Your task to perform on an android device: Search for "dell alienware" on bestbuy, select the first entry, add it to the cart, then select checkout. Image 0: 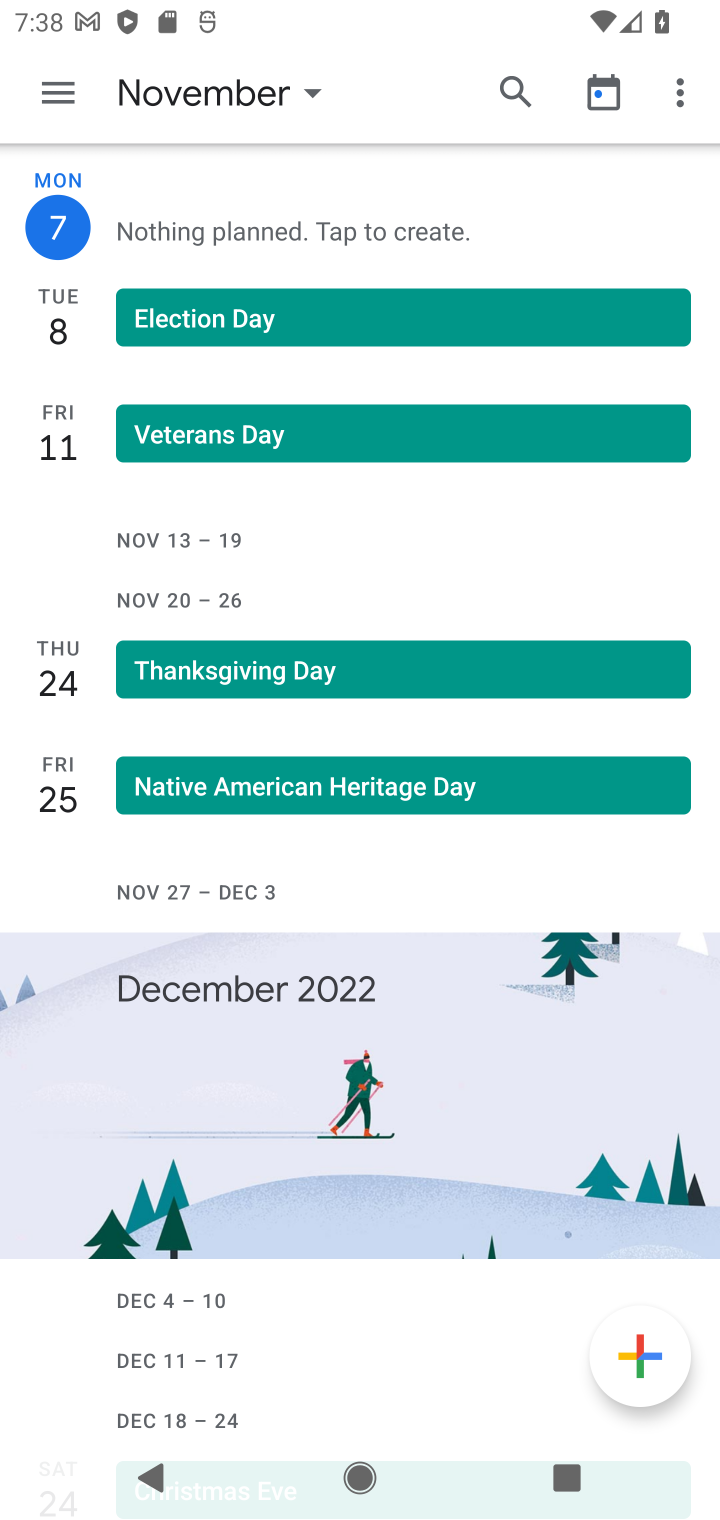
Step 0: press home button
Your task to perform on an android device: Search for "dell alienware" on bestbuy, select the first entry, add it to the cart, then select checkout. Image 1: 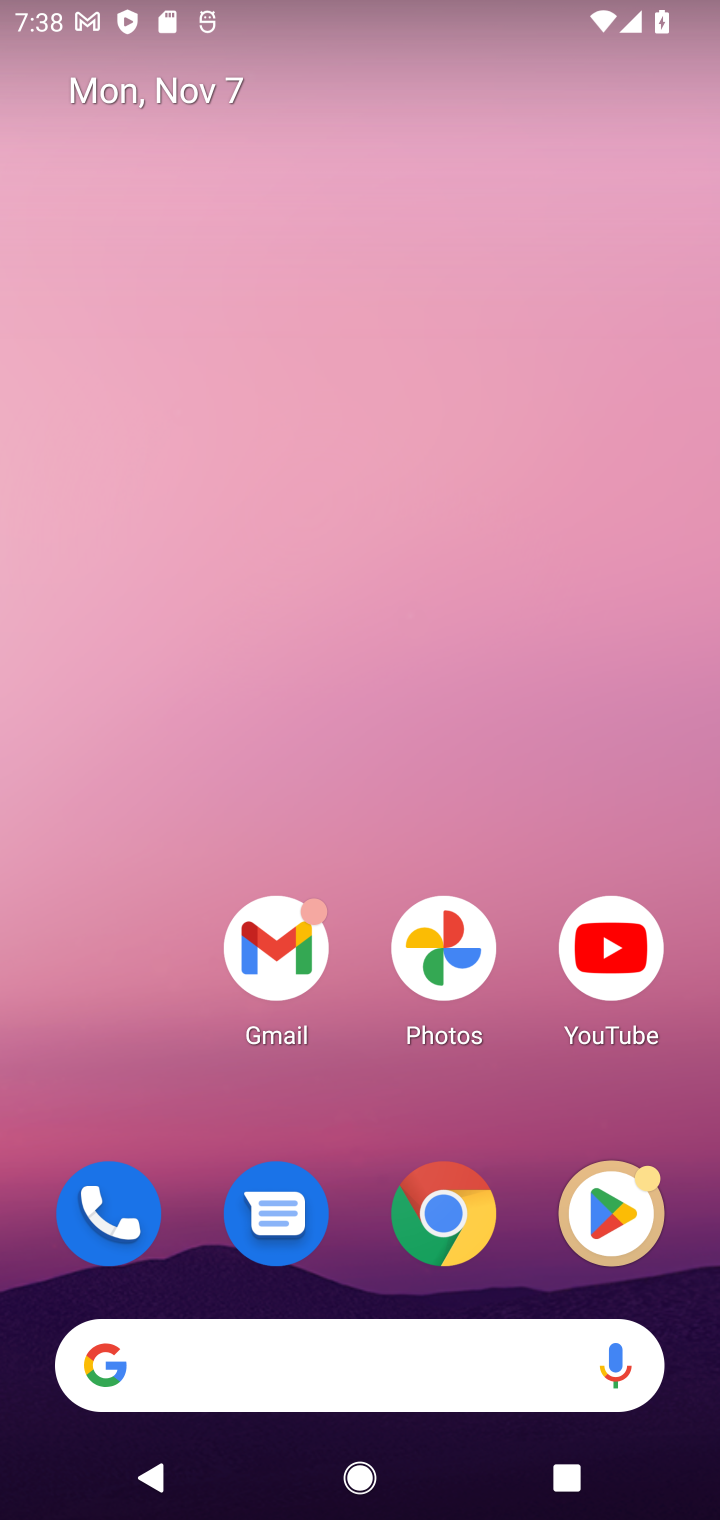
Step 1: click (443, 1227)
Your task to perform on an android device: Search for "dell alienware" on bestbuy, select the first entry, add it to the cart, then select checkout. Image 2: 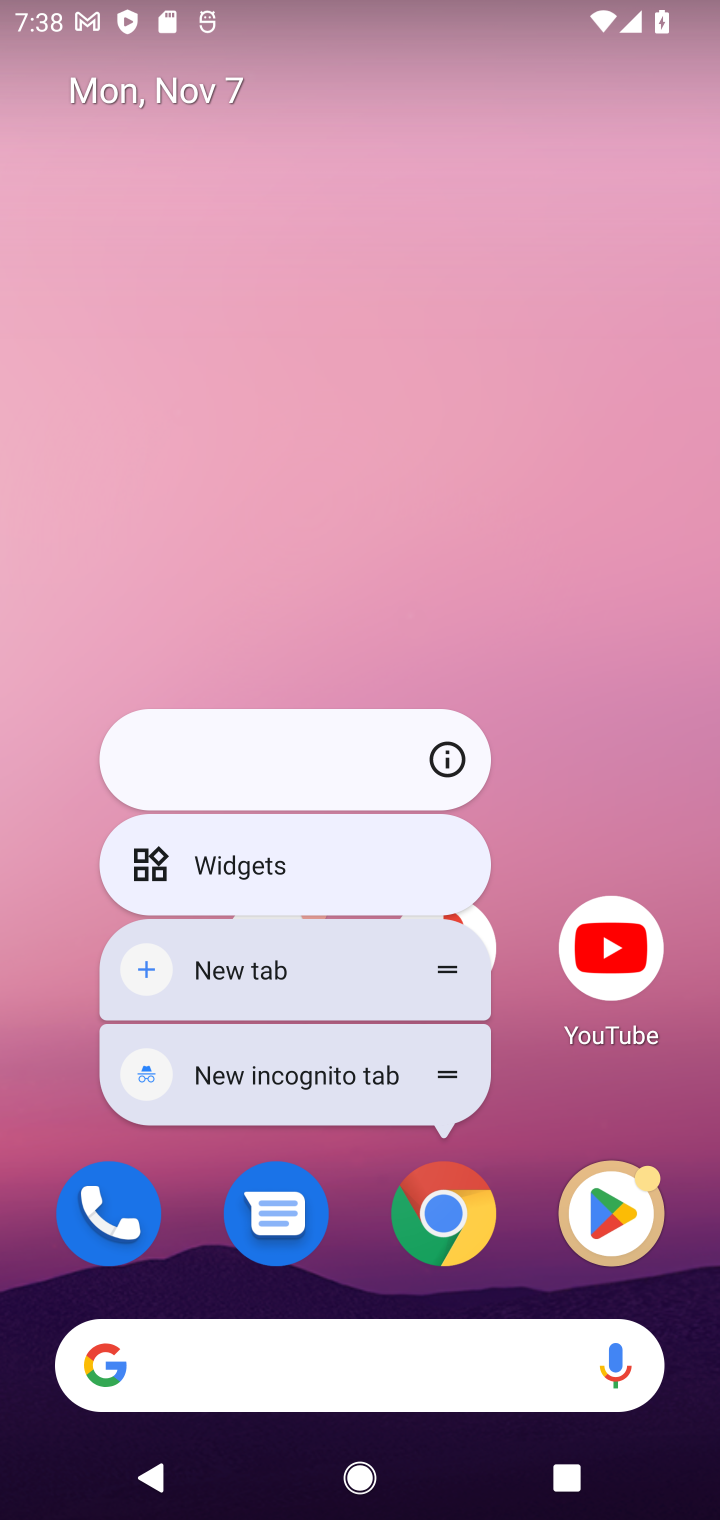
Step 2: click (443, 1227)
Your task to perform on an android device: Search for "dell alienware" on bestbuy, select the first entry, add it to the cart, then select checkout. Image 3: 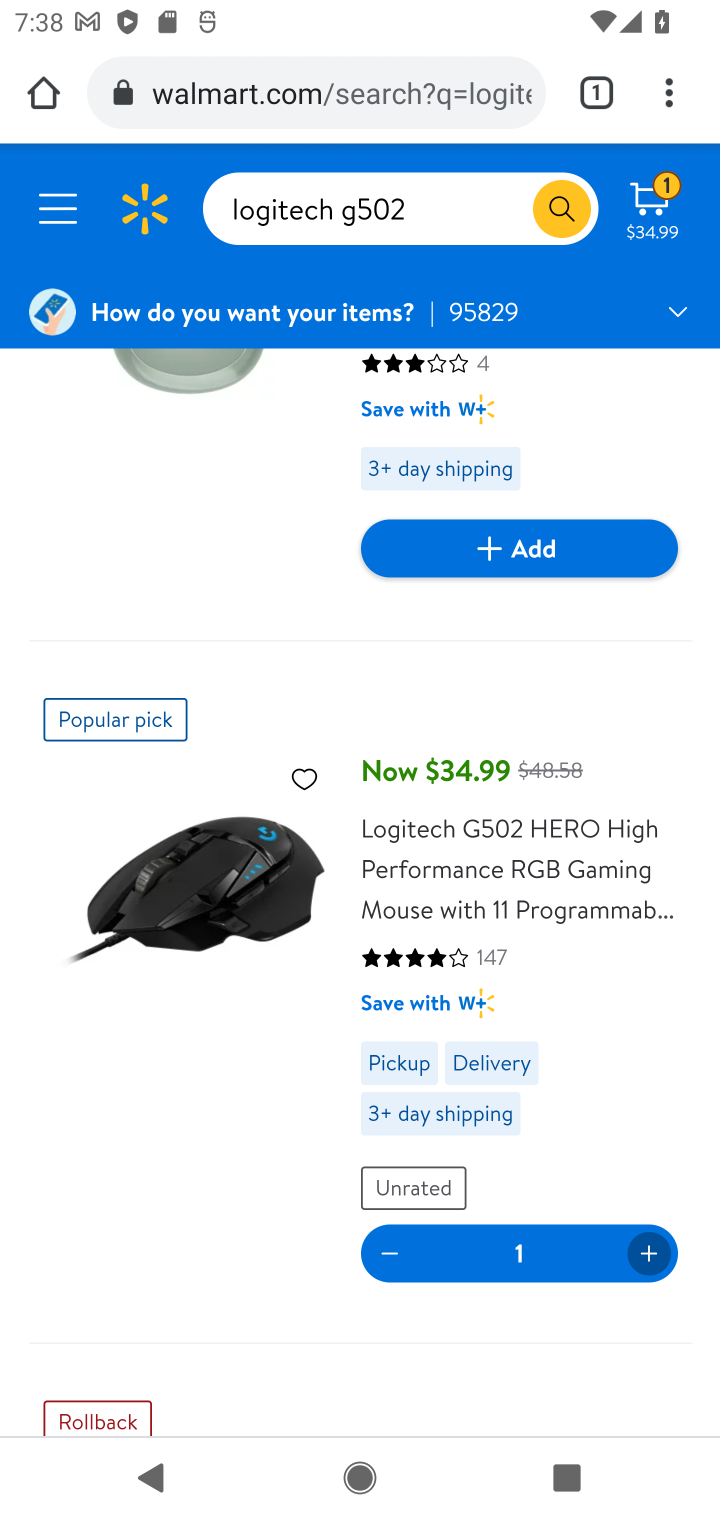
Step 3: click (298, 104)
Your task to perform on an android device: Search for "dell alienware" on bestbuy, select the first entry, add it to the cart, then select checkout. Image 4: 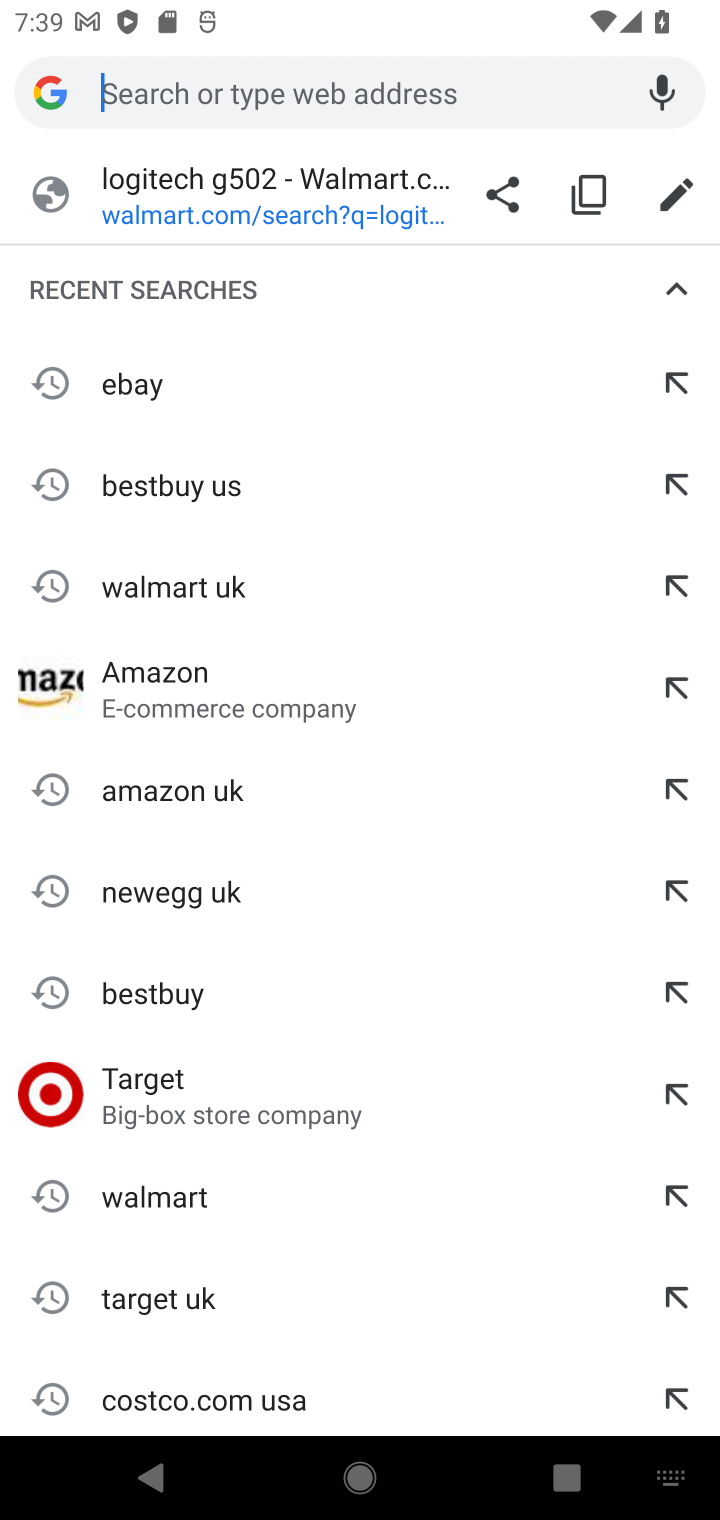
Step 4: type "bestbuy.com"
Your task to perform on an android device: Search for "dell alienware" on bestbuy, select the first entry, add it to the cart, then select checkout. Image 5: 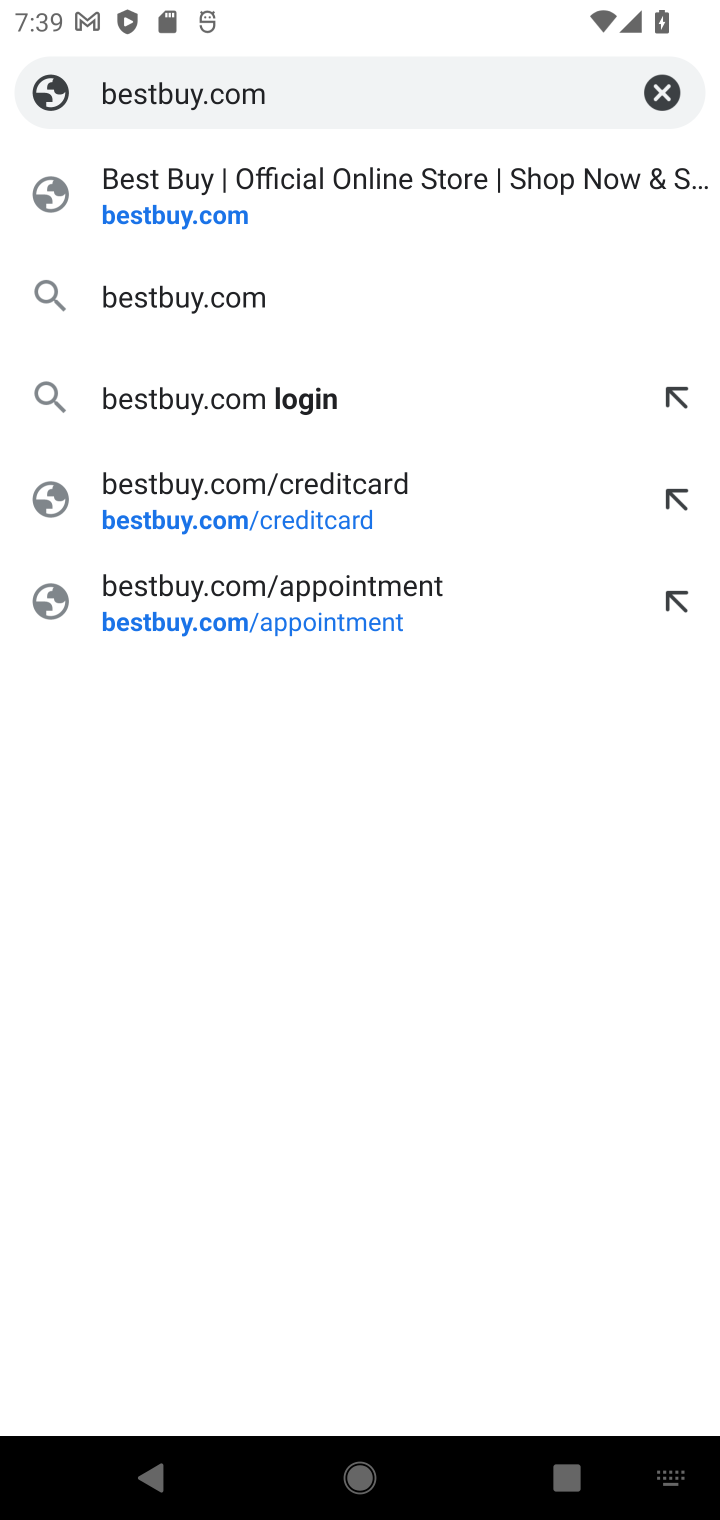
Step 5: click (177, 214)
Your task to perform on an android device: Search for "dell alienware" on bestbuy, select the first entry, add it to the cart, then select checkout. Image 6: 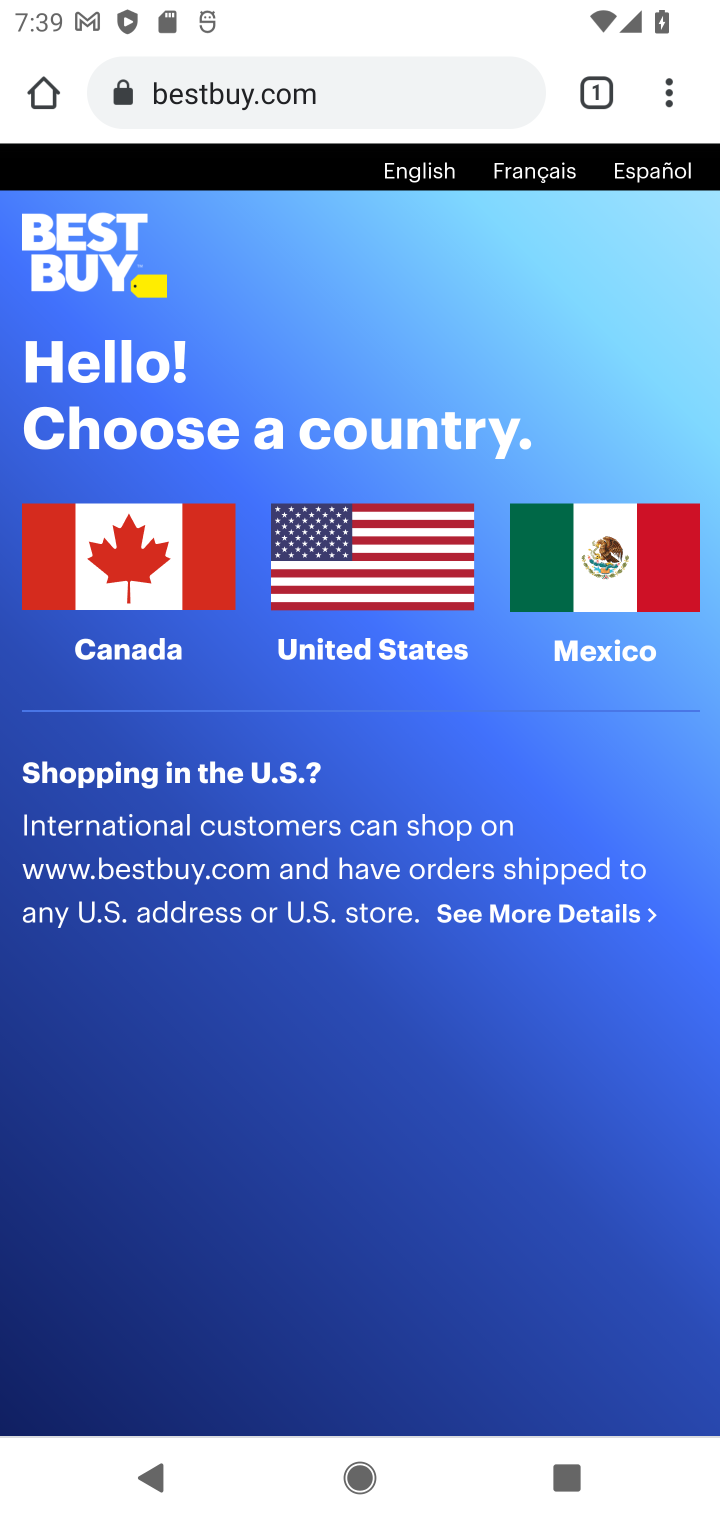
Step 6: click (355, 574)
Your task to perform on an android device: Search for "dell alienware" on bestbuy, select the first entry, add it to the cart, then select checkout. Image 7: 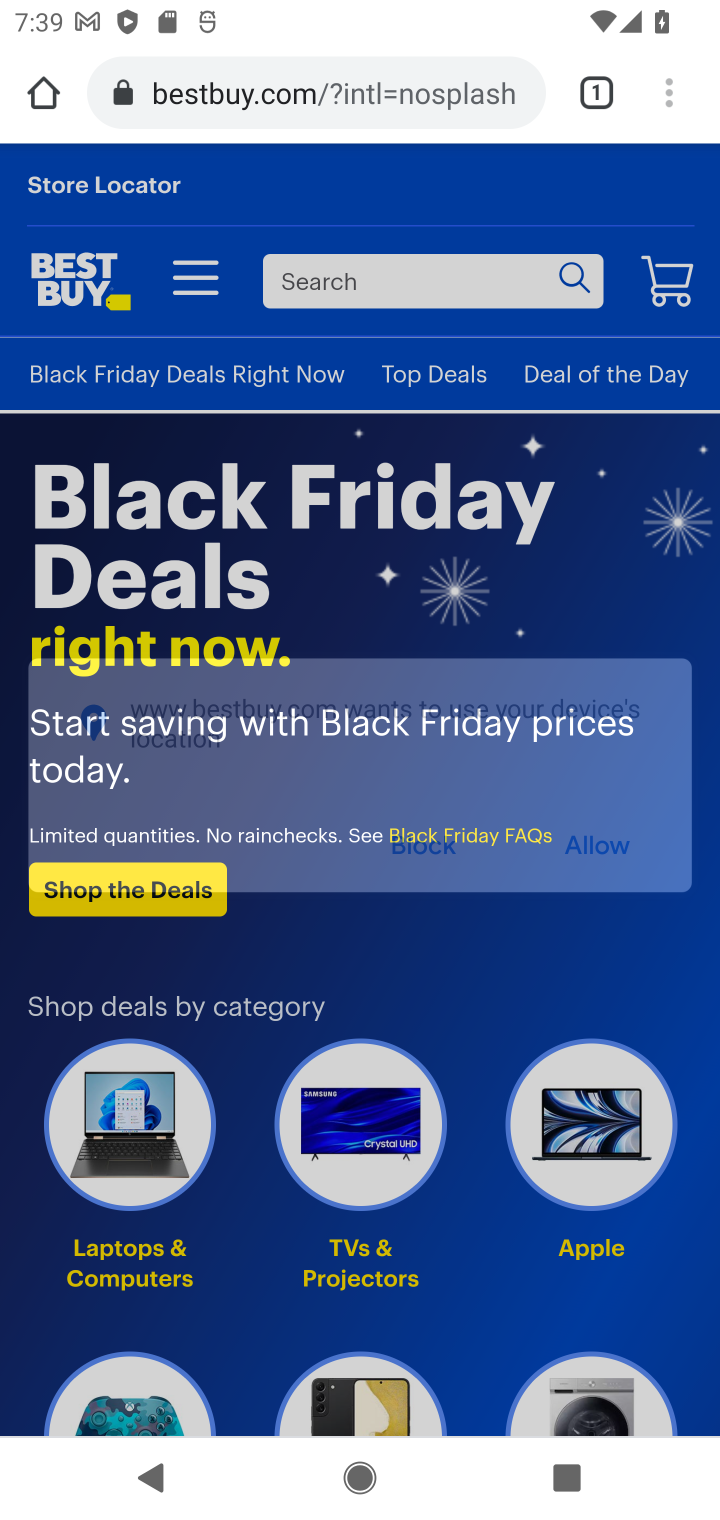
Step 7: click (380, 287)
Your task to perform on an android device: Search for "dell alienware" on bestbuy, select the first entry, add it to the cart, then select checkout. Image 8: 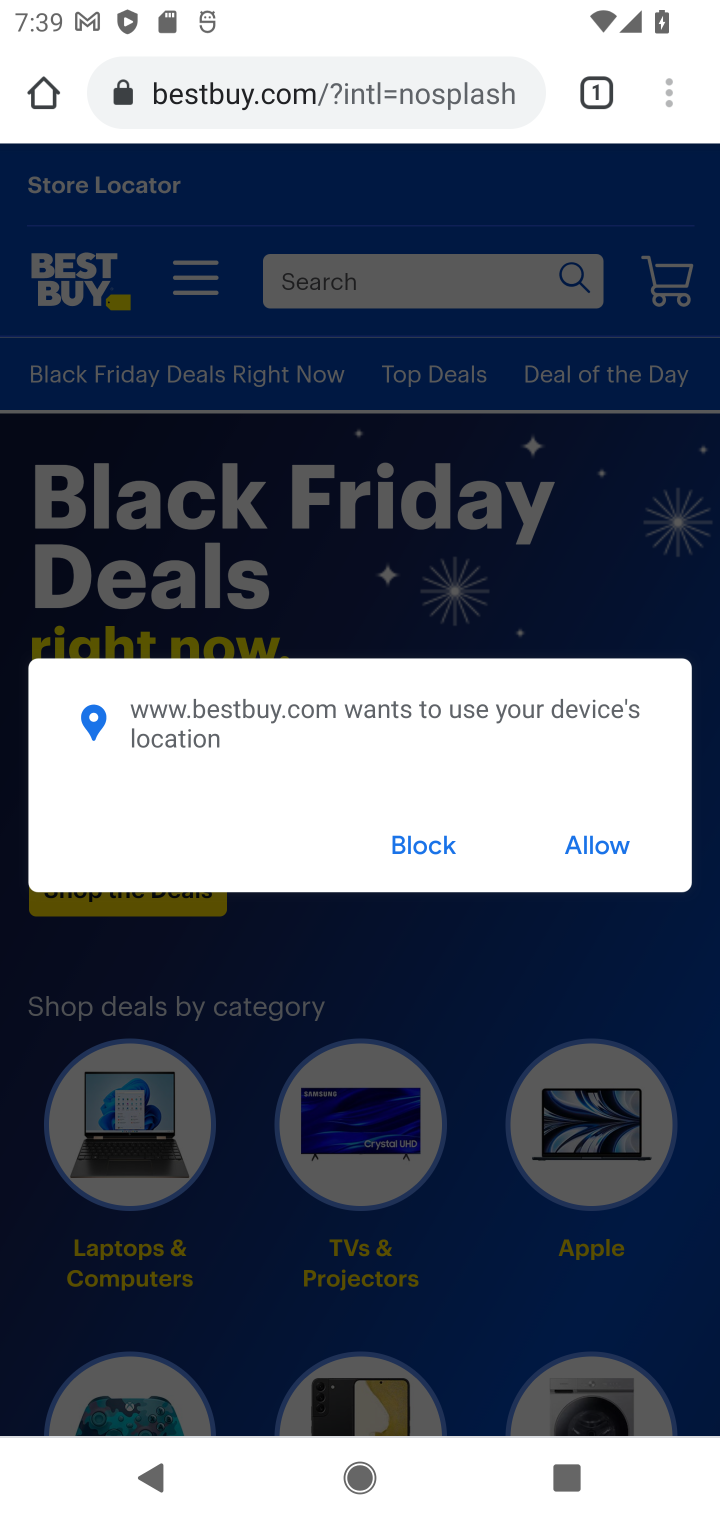
Step 8: click (391, 832)
Your task to perform on an android device: Search for "dell alienware" on bestbuy, select the first entry, add it to the cart, then select checkout. Image 9: 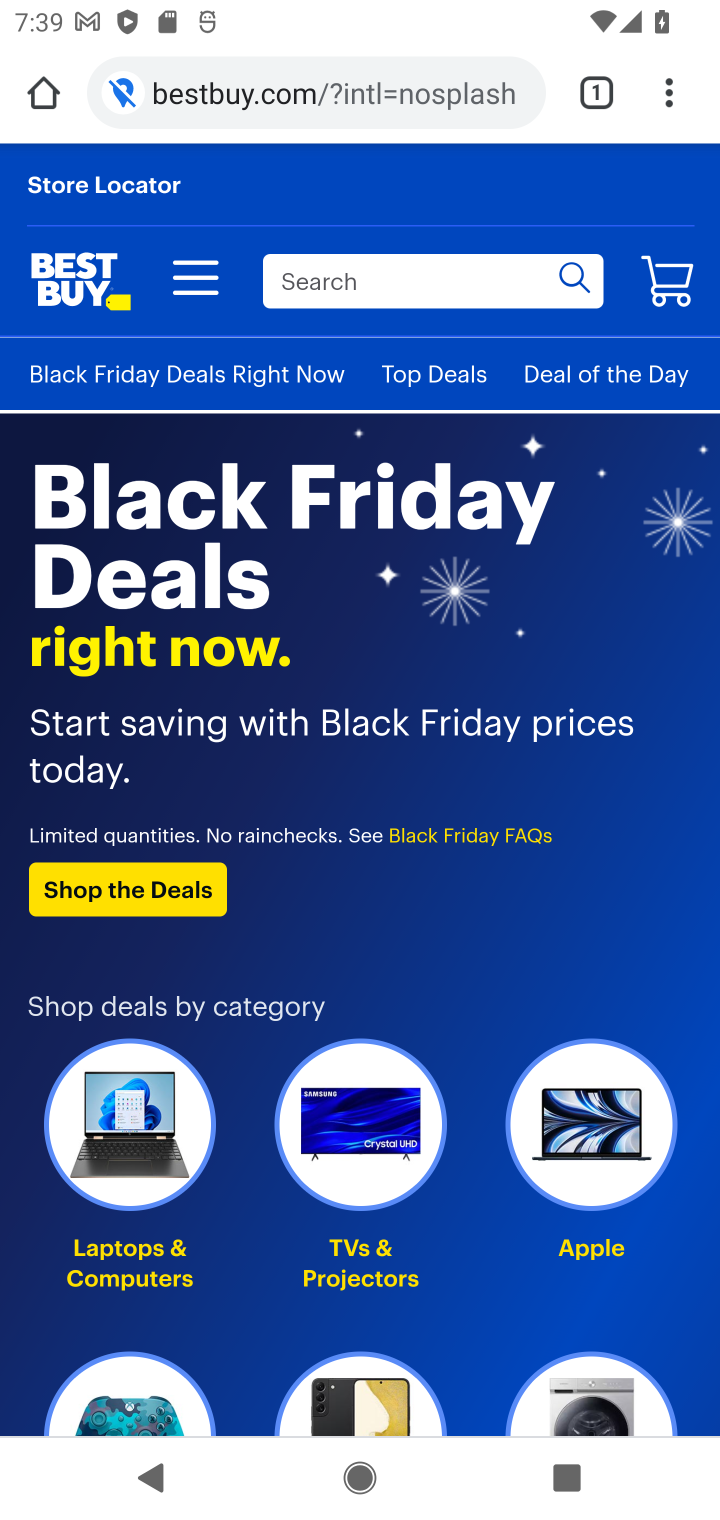
Step 9: click (324, 291)
Your task to perform on an android device: Search for "dell alienware" on bestbuy, select the first entry, add it to the cart, then select checkout. Image 10: 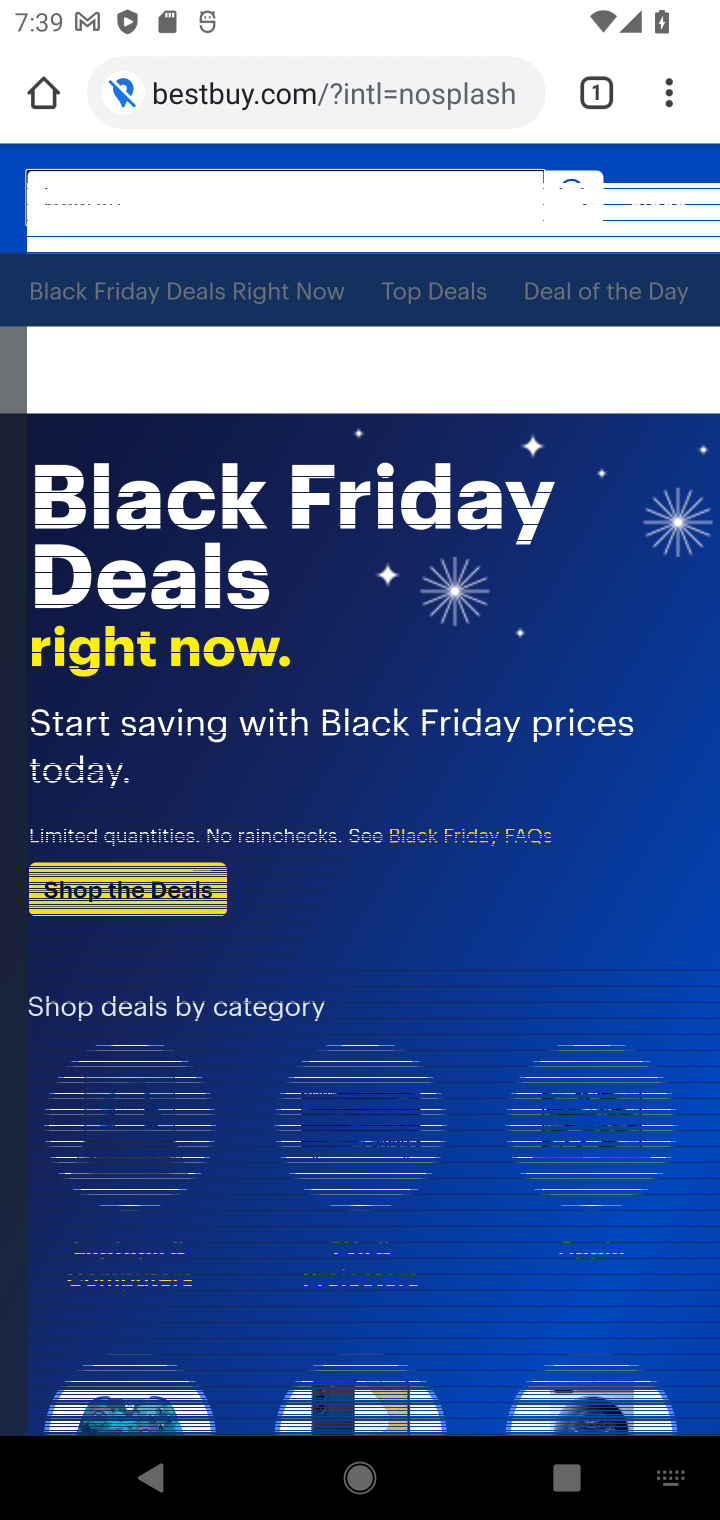
Step 10: type "dell alienware"
Your task to perform on an android device: Search for "dell alienware" on bestbuy, select the first entry, add it to the cart, then select checkout. Image 11: 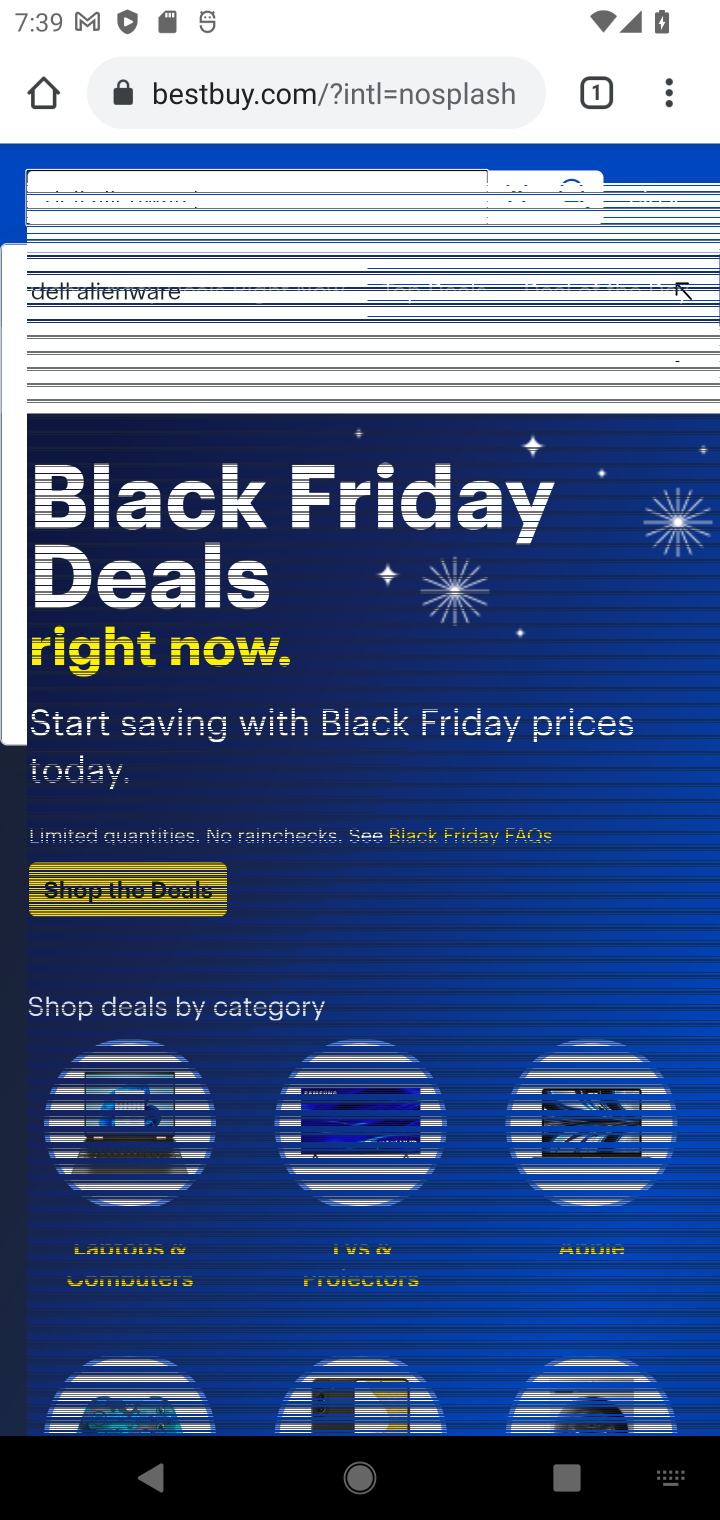
Step 11: click (111, 299)
Your task to perform on an android device: Search for "dell alienware" on bestbuy, select the first entry, add it to the cart, then select checkout. Image 12: 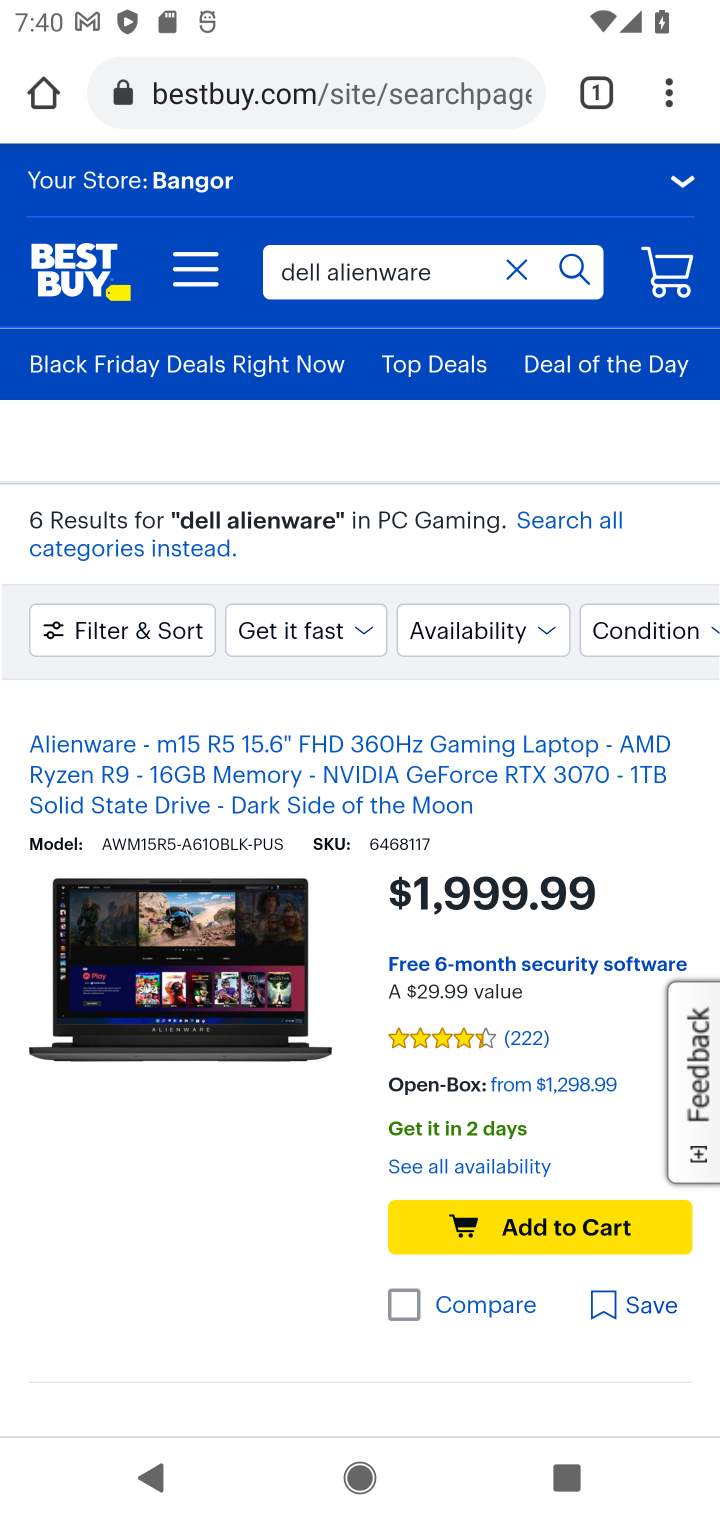
Step 12: click (213, 1019)
Your task to perform on an android device: Search for "dell alienware" on bestbuy, select the first entry, add it to the cart, then select checkout. Image 13: 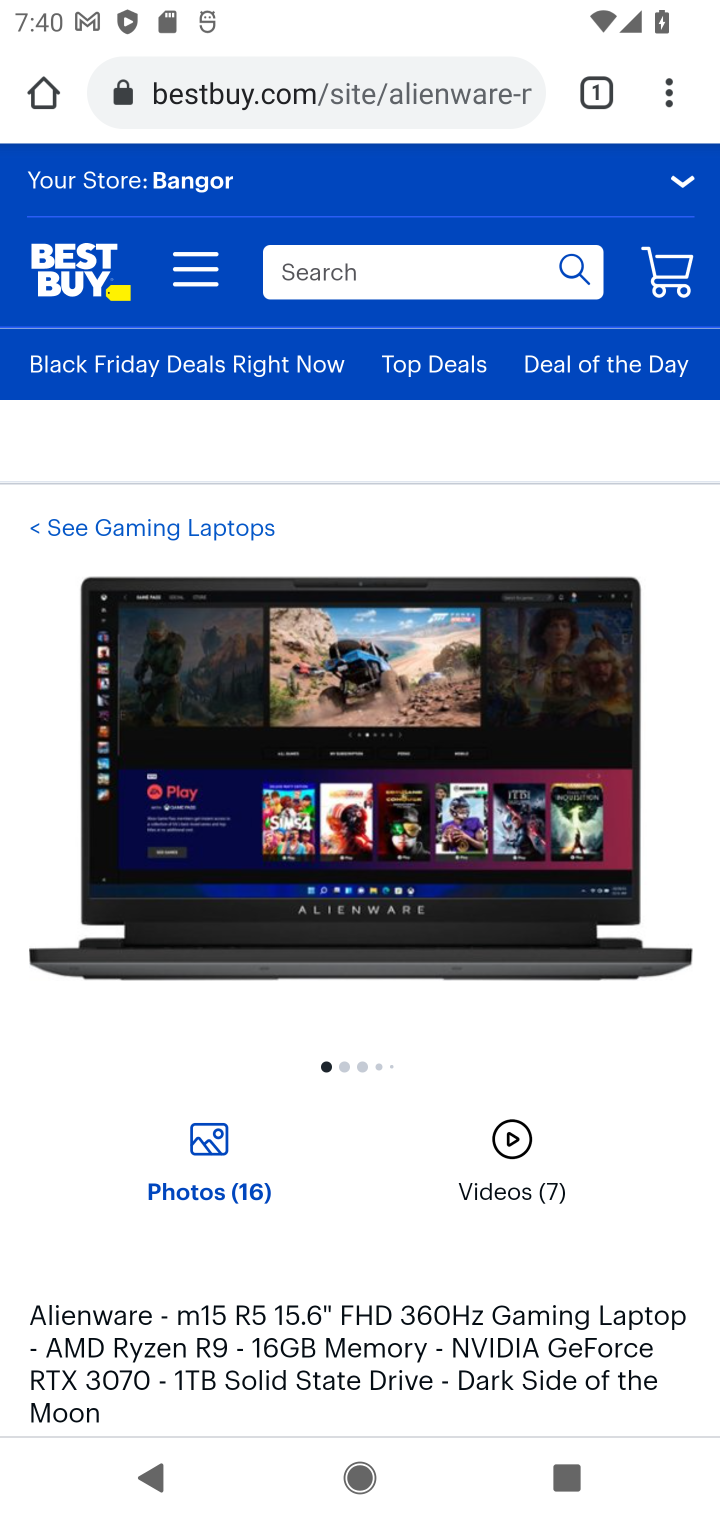
Step 13: drag from (374, 1081) to (394, 761)
Your task to perform on an android device: Search for "dell alienware" on bestbuy, select the first entry, add it to the cart, then select checkout. Image 14: 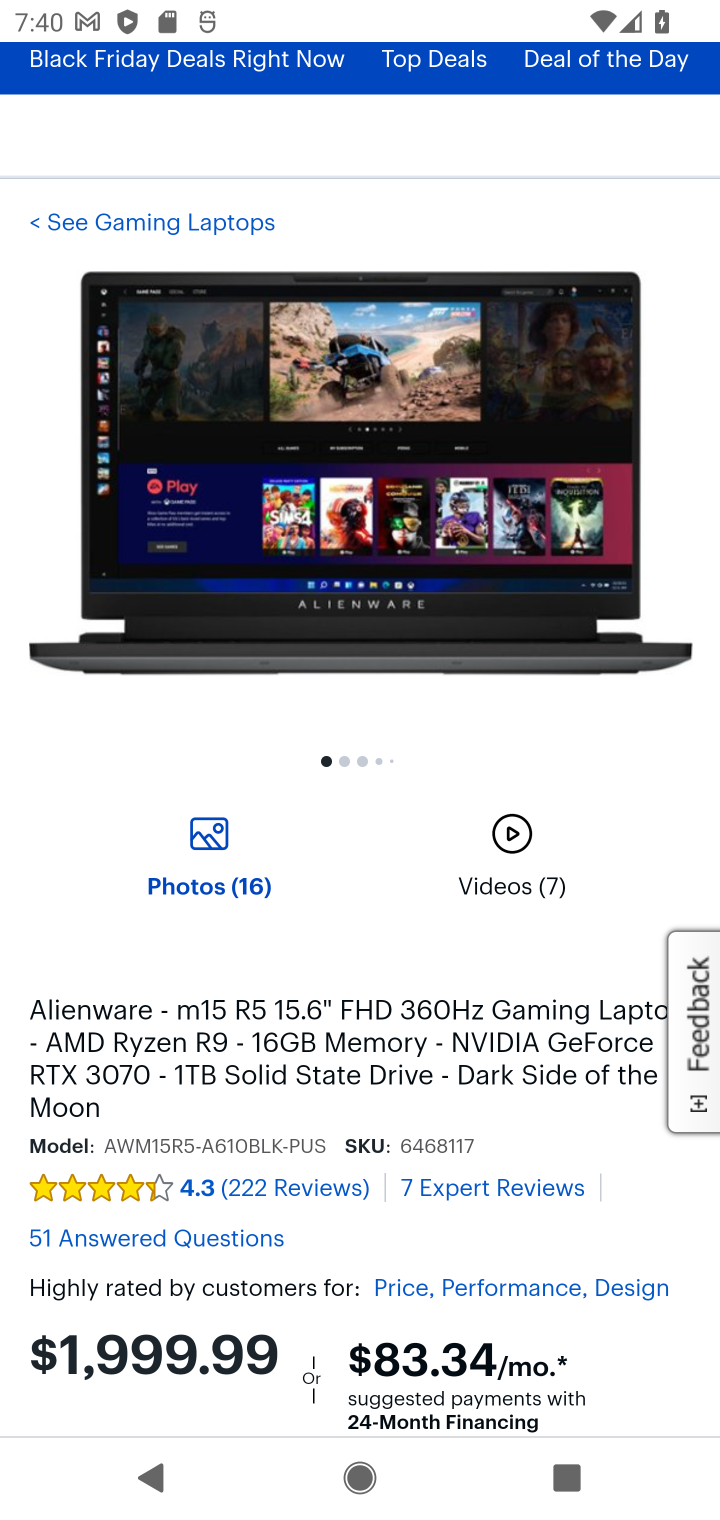
Step 14: drag from (365, 1096) to (413, 784)
Your task to perform on an android device: Search for "dell alienware" on bestbuy, select the first entry, add it to the cart, then select checkout. Image 15: 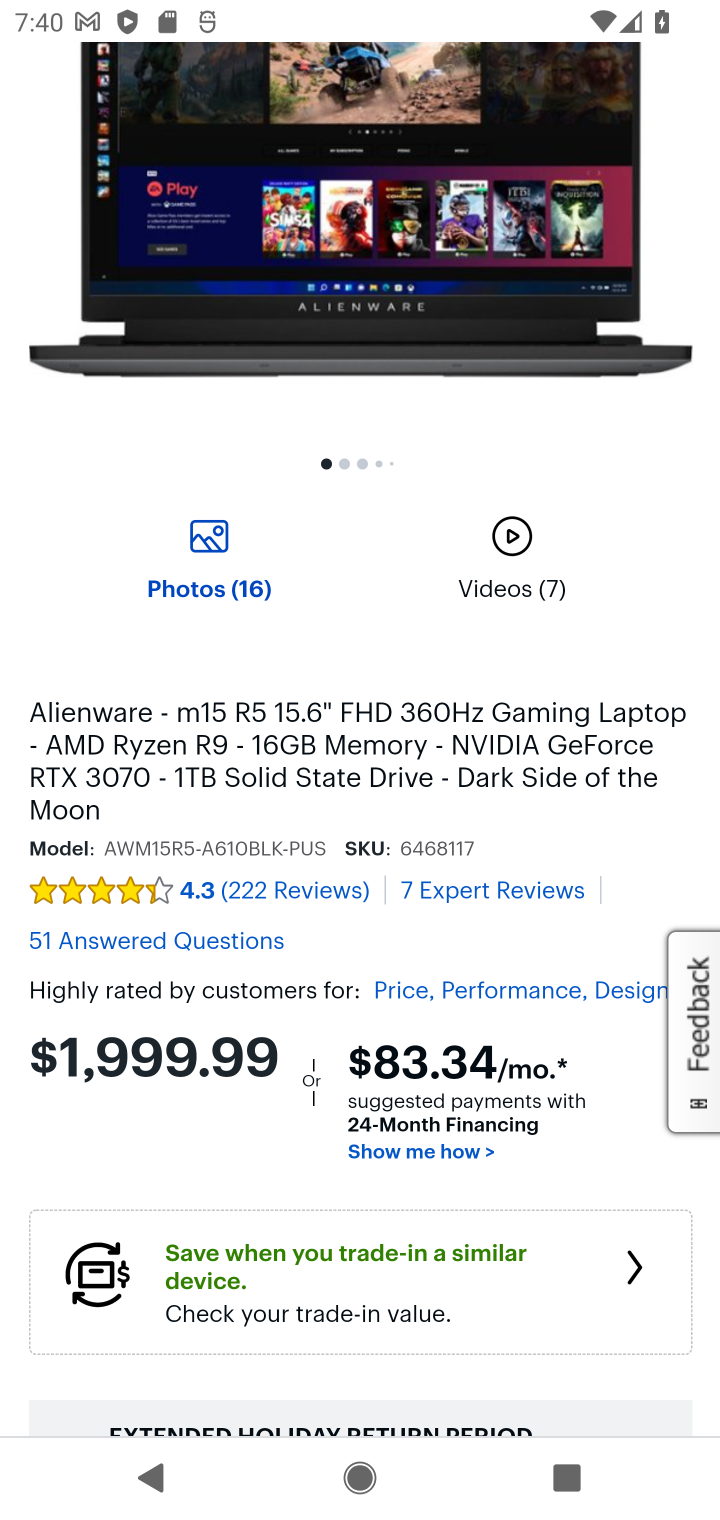
Step 15: drag from (349, 1199) to (392, 870)
Your task to perform on an android device: Search for "dell alienware" on bestbuy, select the first entry, add it to the cart, then select checkout. Image 16: 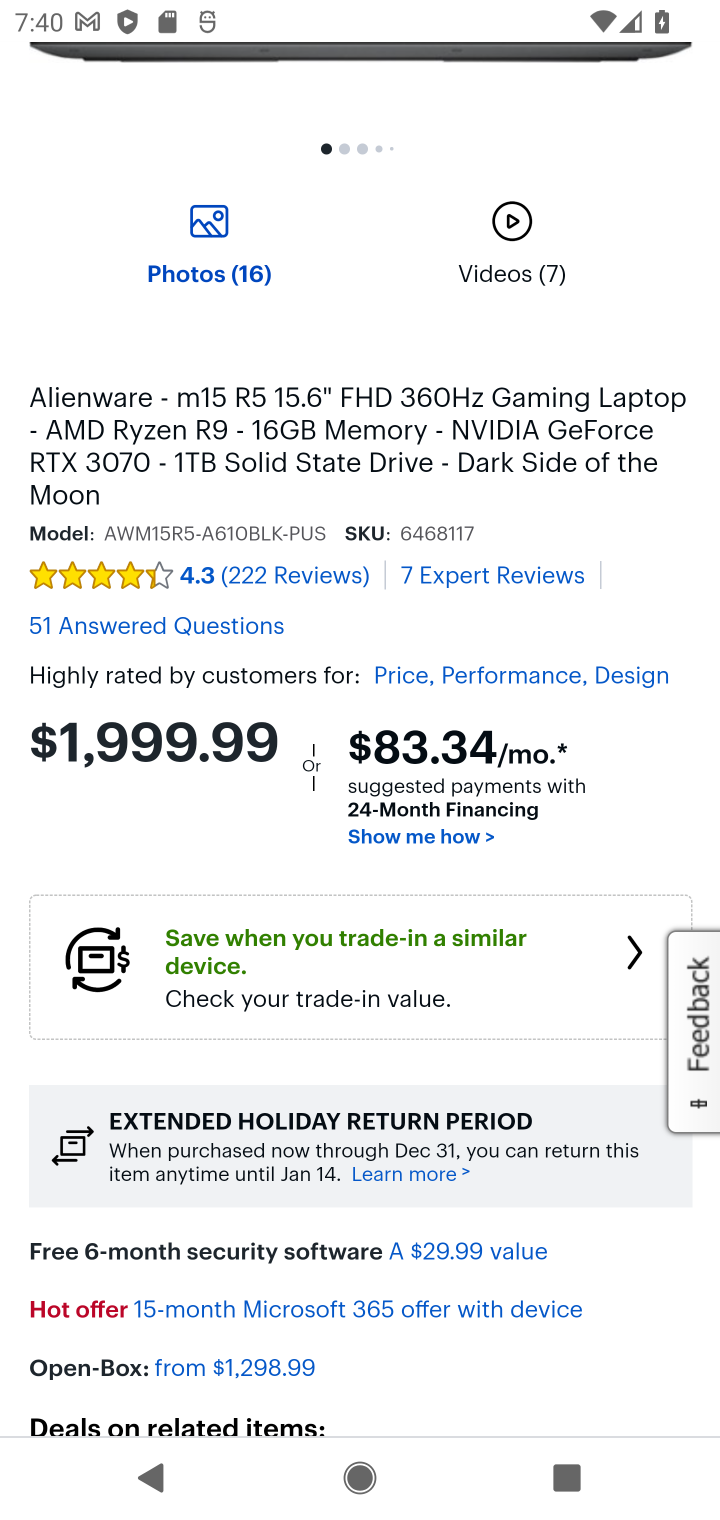
Step 16: drag from (386, 1155) to (414, 933)
Your task to perform on an android device: Search for "dell alienware" on bestbuy, select the first entry, add it to the cart, then select checkout. Image 17: 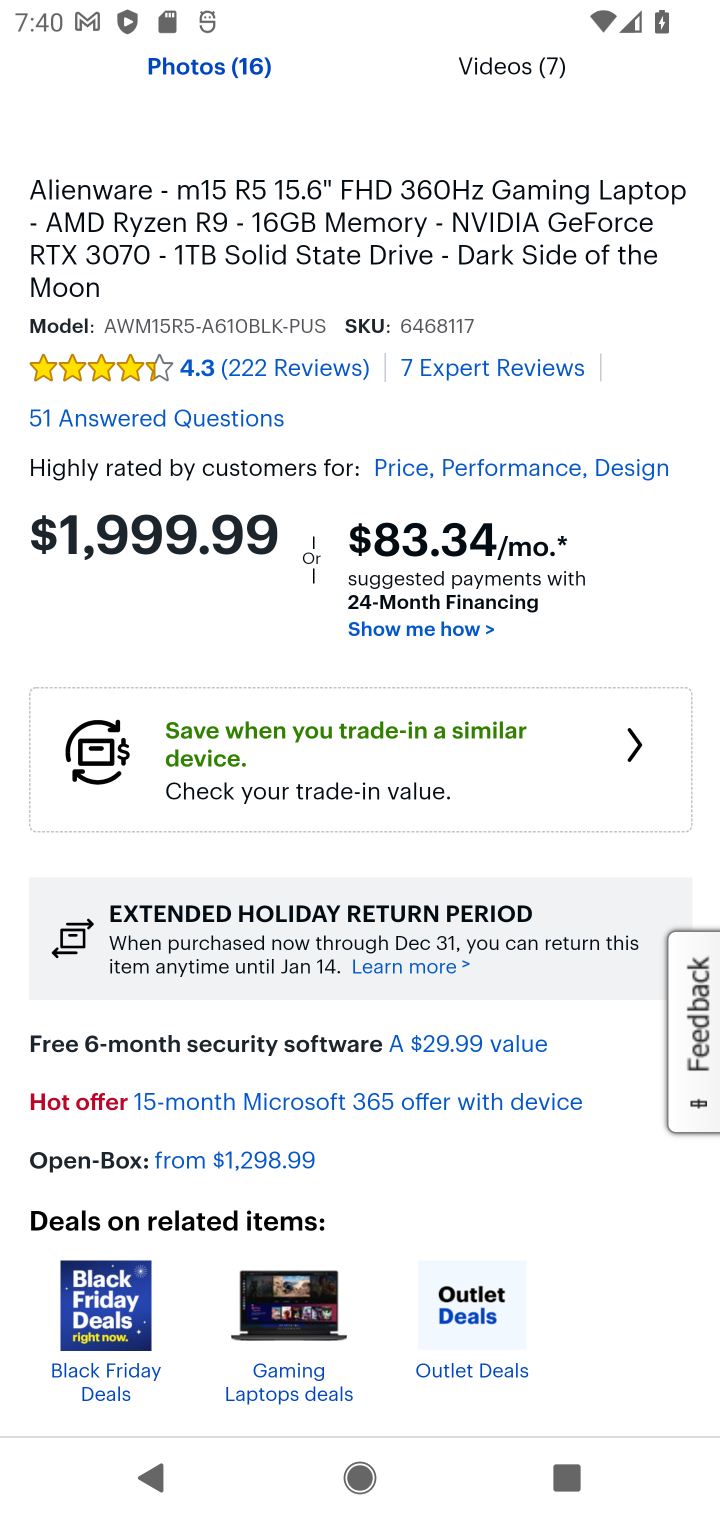
Step 17: drag from (399, 1133) to (426, 771)
Your task to perform on an android device: Search for "dell alienware" on bestbuy, select the first entry, add it to the cart, then select checkout. Image 18: 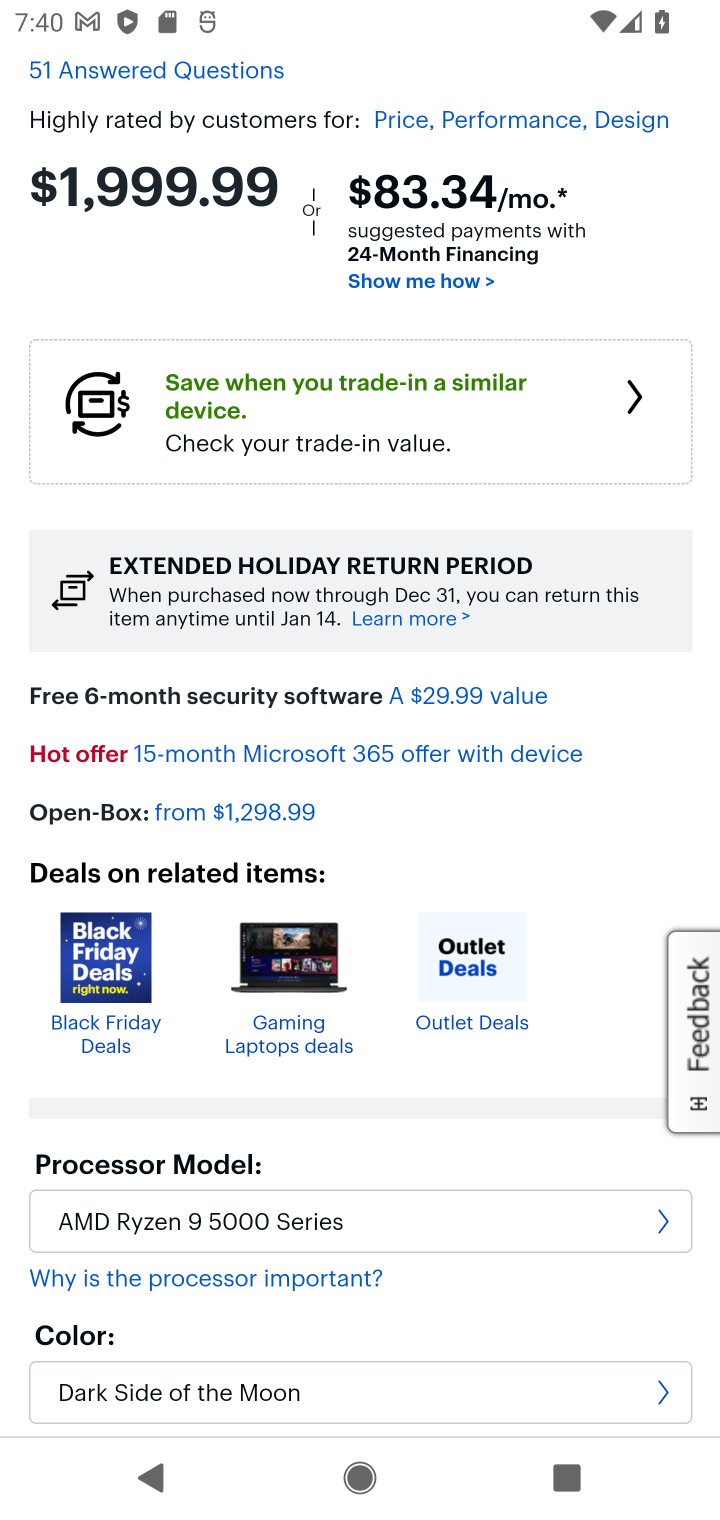
Step 18: drag from (406, 1149) to (438, 784)
Your task to perform on an android device: Search for "dell alienware" on bestbuy, select the first entry, add it to the cart, then select checkout. Image 19: 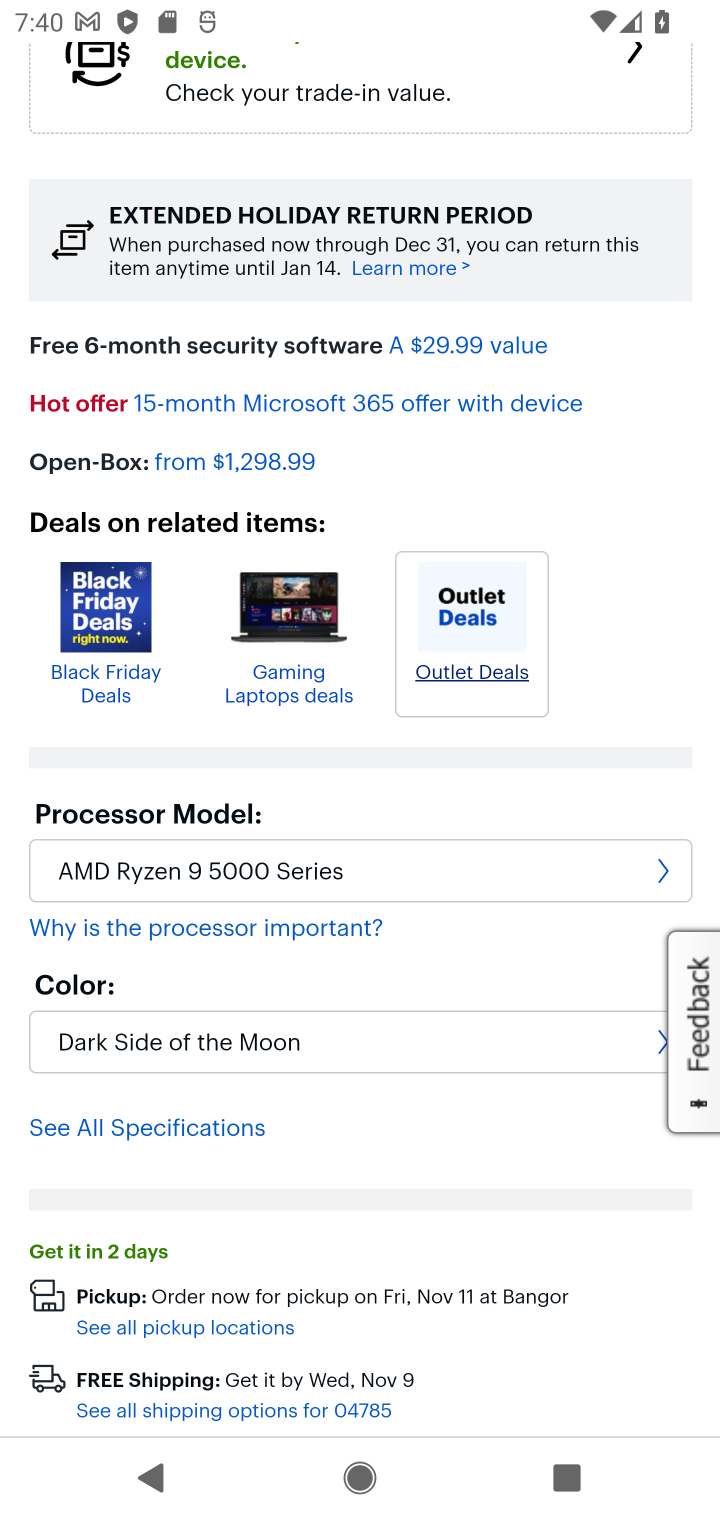
Step 19: drag from (340, 1152) to (382, 741)
Your task to perform on an android device: Search for "dell alienware" on bestbuy, select the first entry, add it to the cart, then select checkout. Image 20: 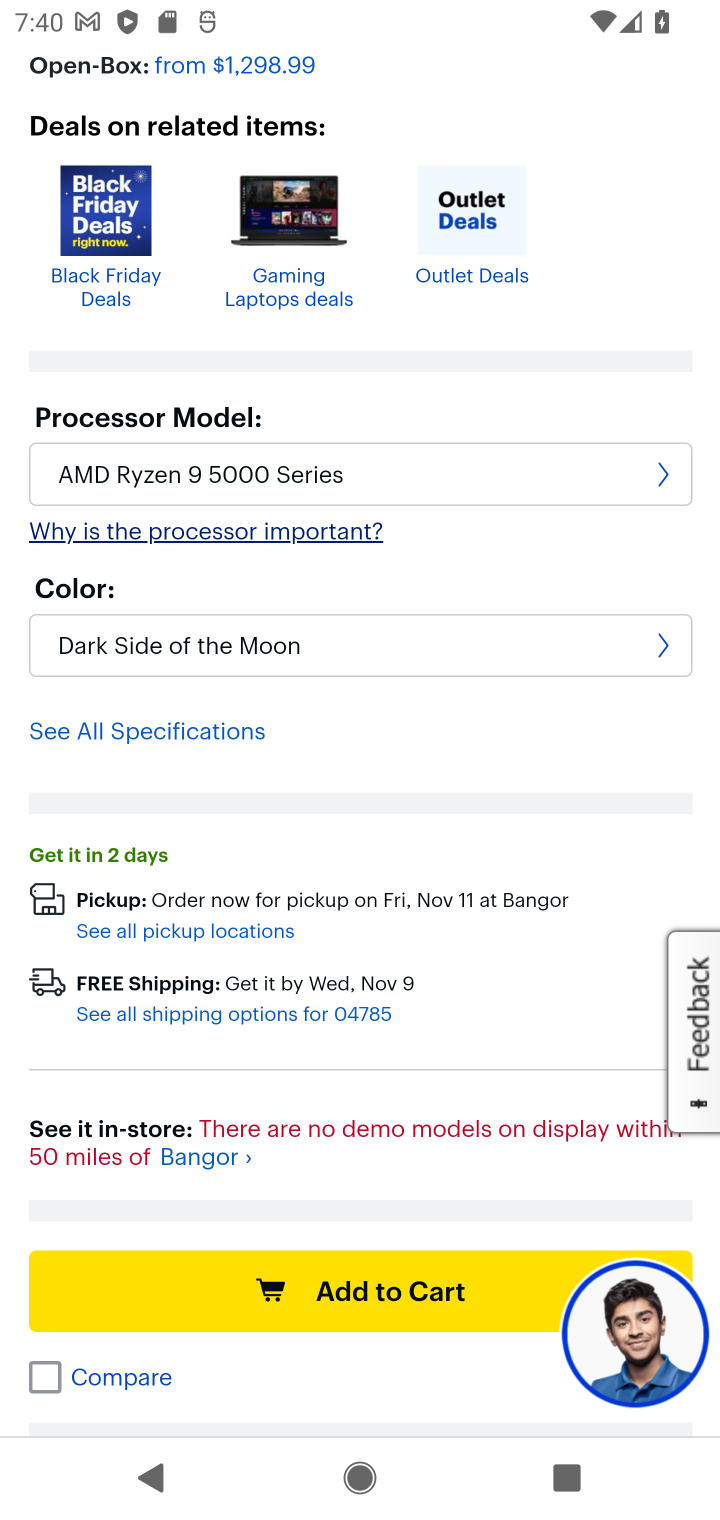
Step 20: click (355, 1281)
Your task to perform on an android device: Search for "dell alienware" on bestbuy, select the first entry, add it to the cart, then select checkout. Image 21: 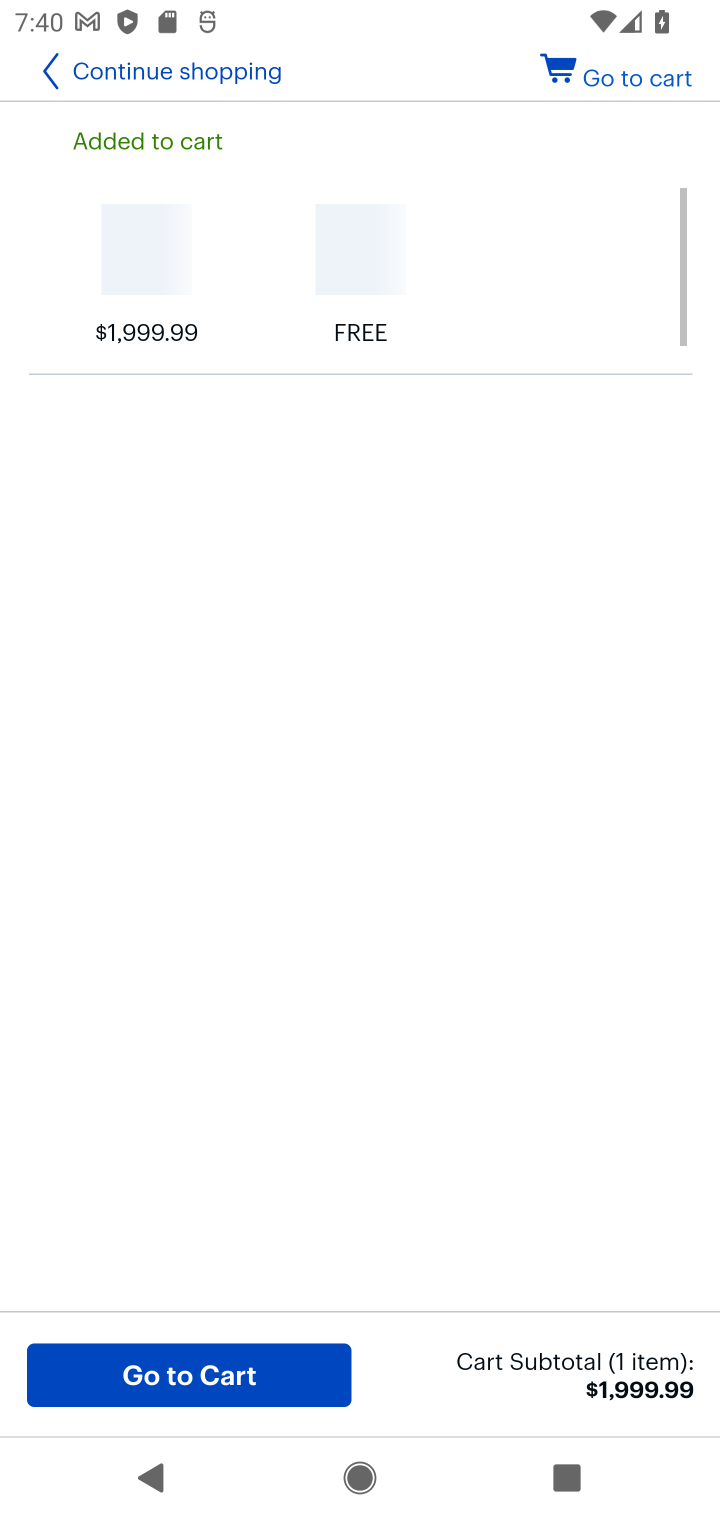
Step 21: click (641, 84)
Your task to perform on an android device: Search for "dell alienware" on bestbuy, select the first entry, add it to the cart, then select checkout. Image 22: 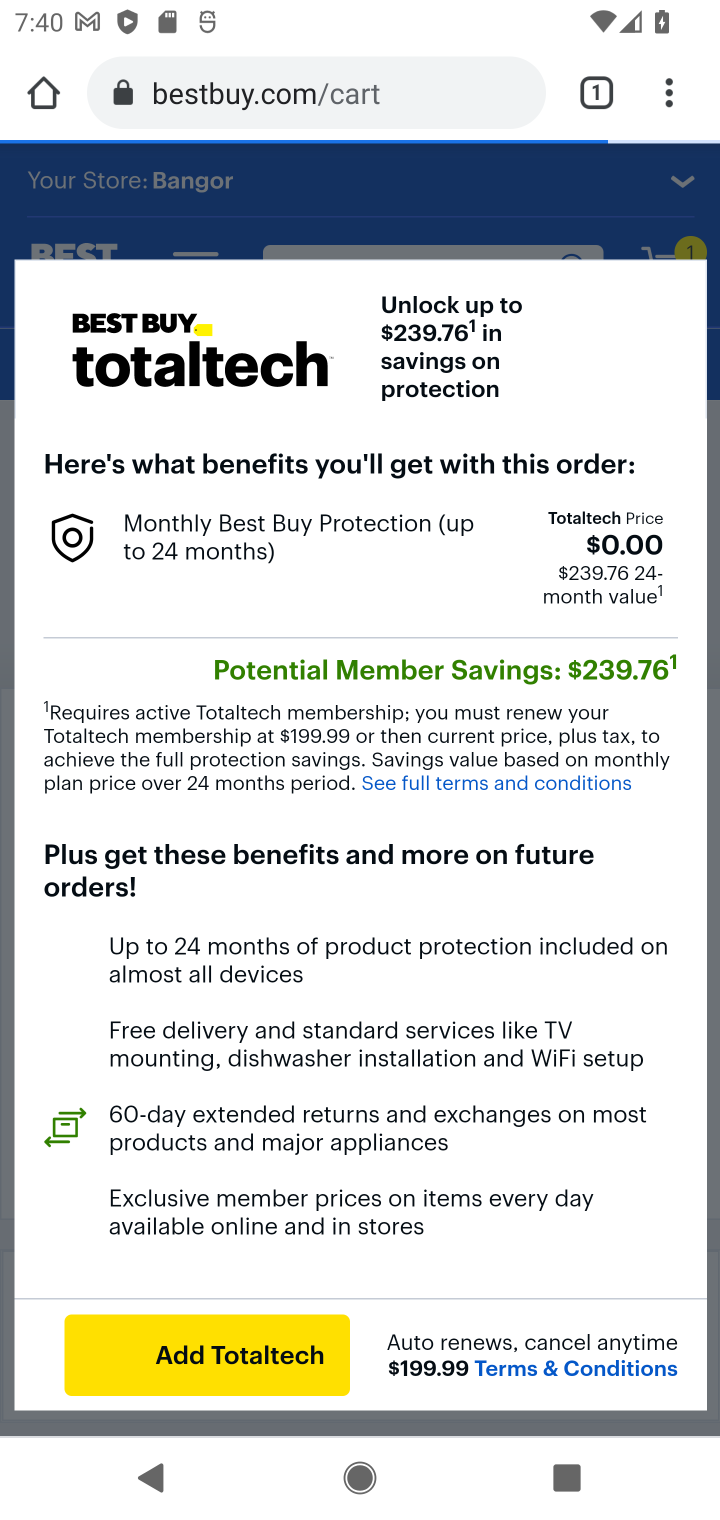
Step 22: click (428, 1150)
Your task to perform on an android device: Search for "dell alienware" on bestbuy, select the first entry, add it to the cart, then select checkout. Image 23: 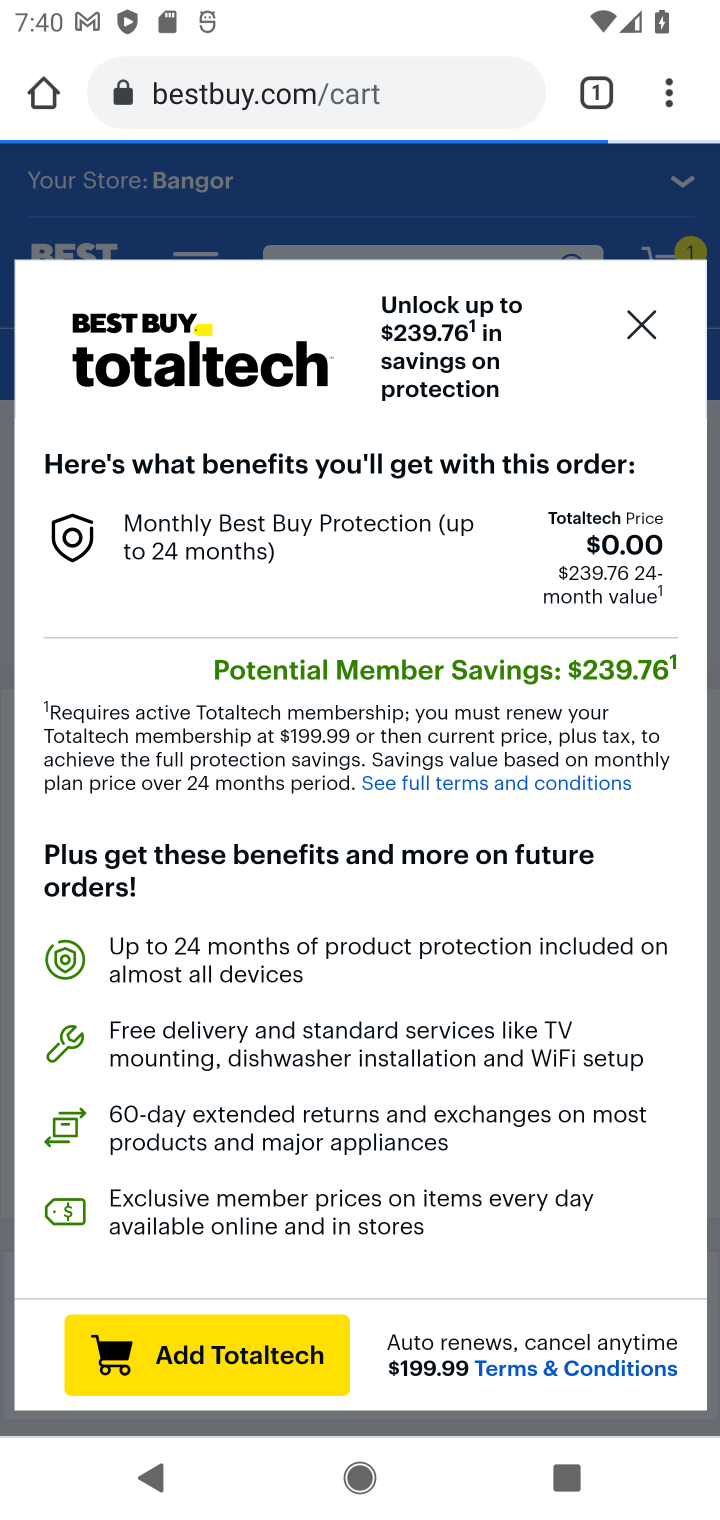
Step 23: click (636, 320)
Your task to perform on an android device: Search for "dell alienware" on bestbuy, select the first entry, add it to the cart, then select checkout. Image 24: 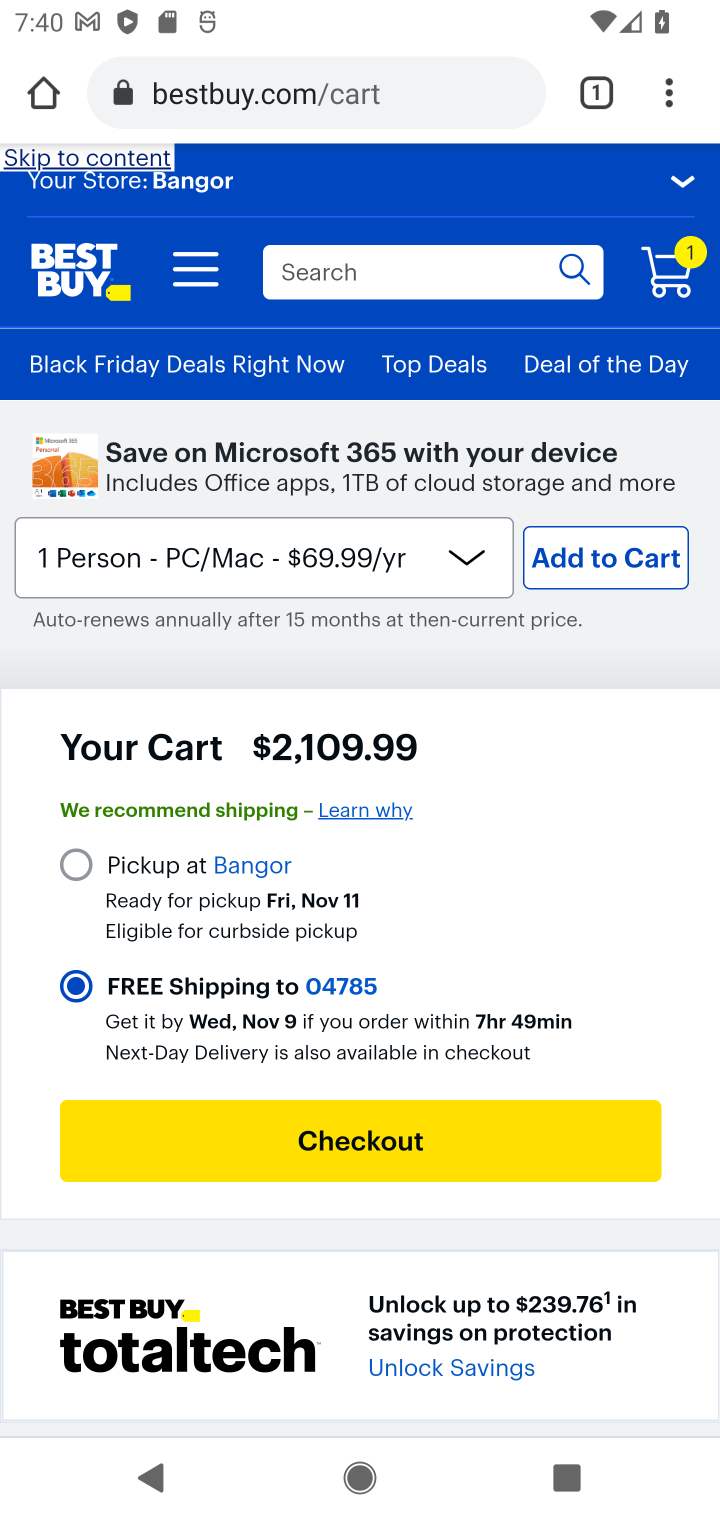
Step 24: click (346, 1113)
Your task to perform on an android device: Search for "dell alienware" on bestbuy, select the first entry, add it to the cart, then select checkout. Image 25: 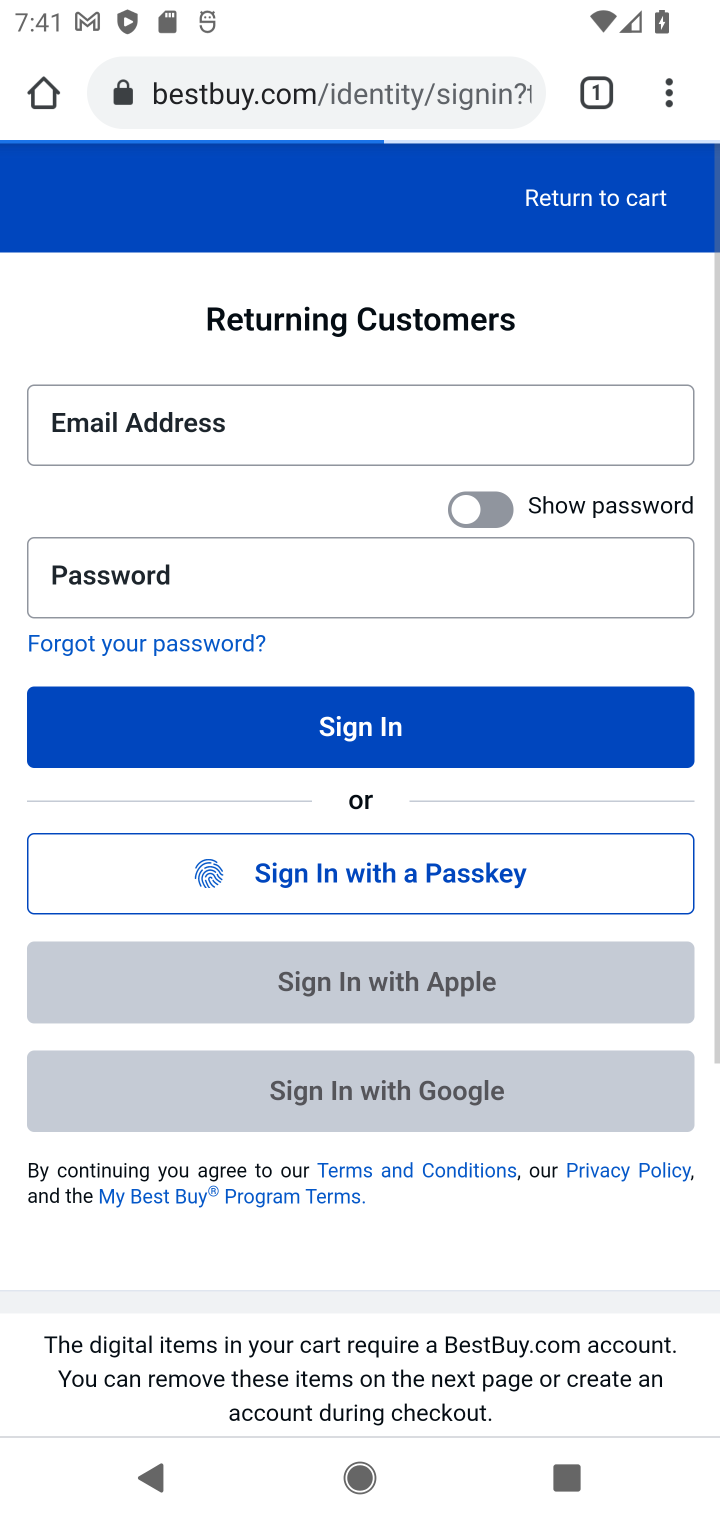
Step 25: task complete